Your task to perform on an android device: Go to location settings Image 0: 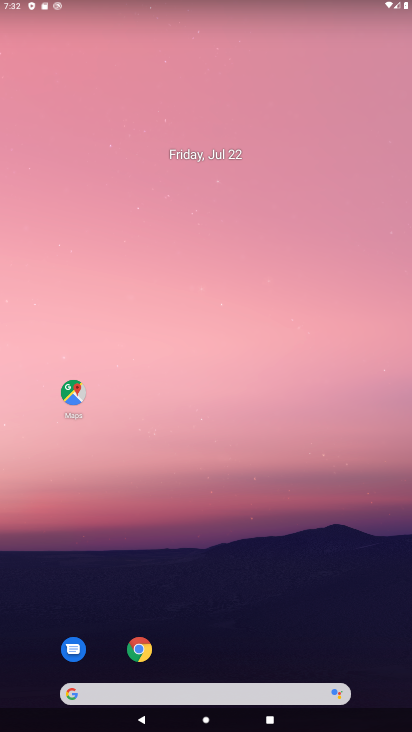
Step 0: click (66, 391)
Your task to perform on an android device: Go to location settings Image 1: 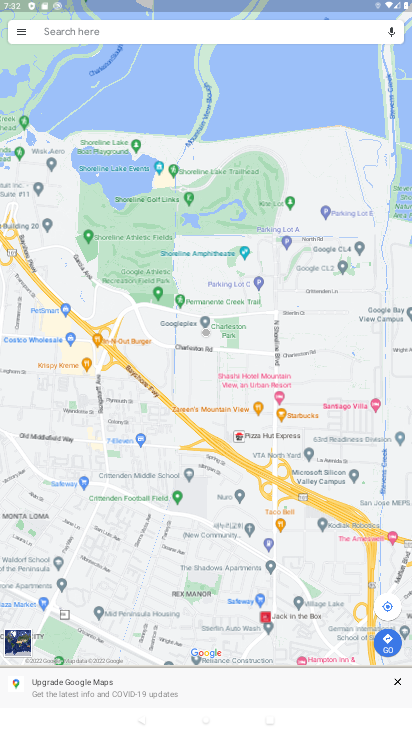
Step 1: press home button
Your task to perform on an android device: Go to location settings Image 2: 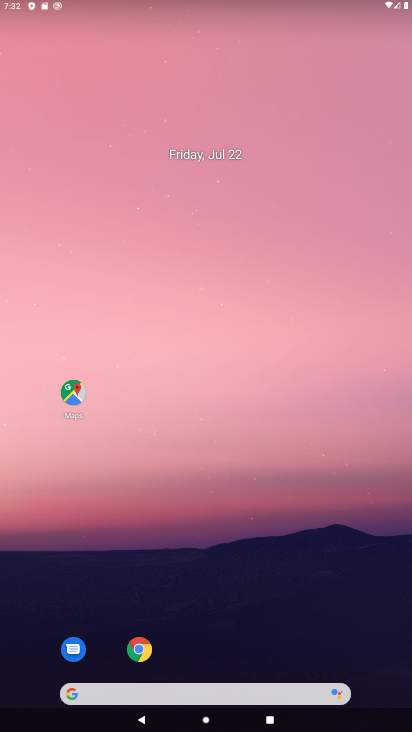
Step 2: press home button
Your task to perform on an android device: Go to location settings Image 3: 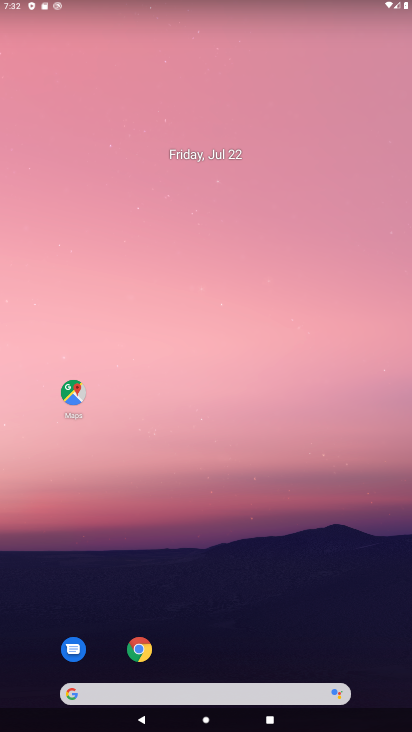
Step 3: drag from (288, 542) to (293, 133)
Your task to perform on an android device: Go to location settings Image 4: 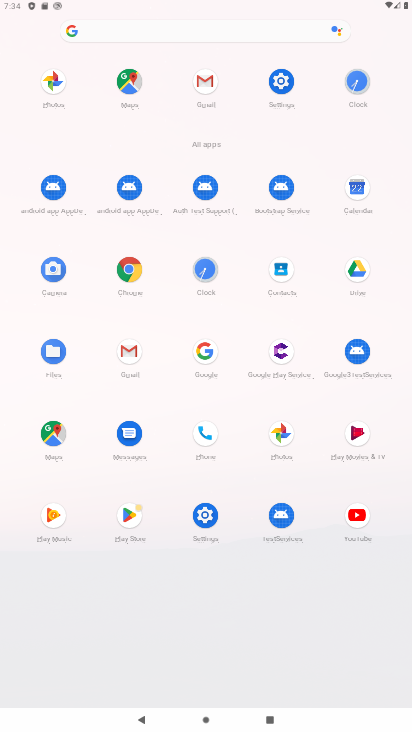
Step 4: click (207, 519)
Your task to perform on an android device: Go to location settings Image 5: 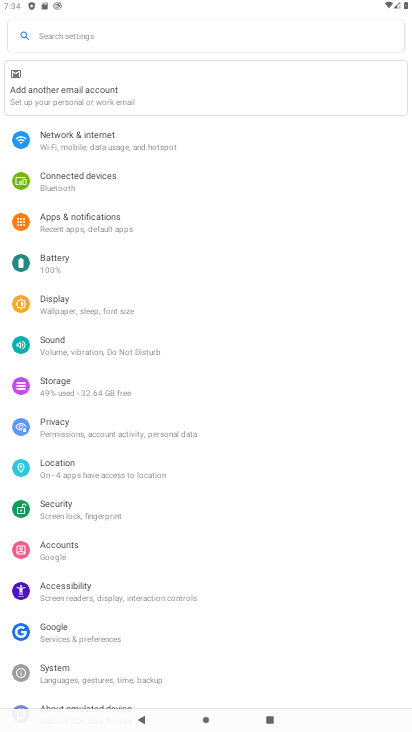
Step 5: click (81, 471)
Your task to perform on an android device: Go to location settings Image 6: 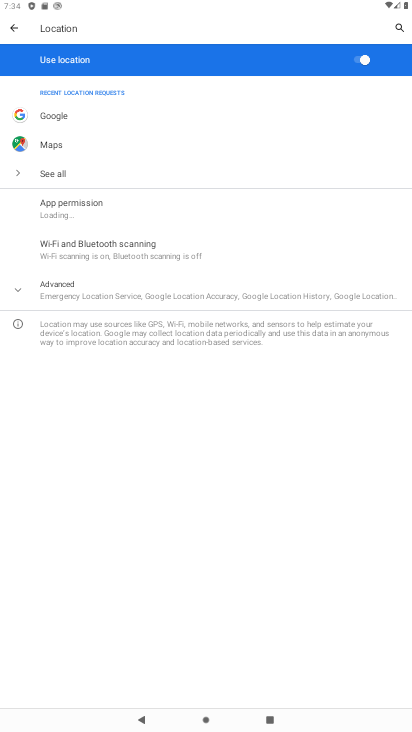
Step 6: task complete